Your task to perform on an android device: turn on showing notifications on the lock screen Image 0: 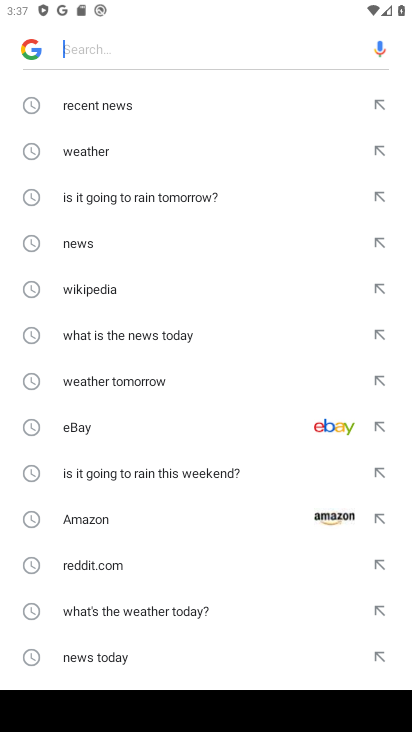
Step 0: press home button
Your task to perform on an android device: turn on showing notifications on the lock screen Image 1: 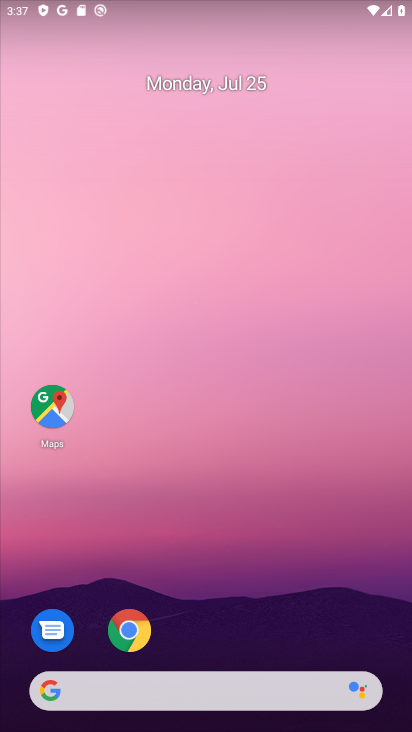
Step 1: drag from (169, 695) to (191, 122)
Your task to perform on an android device: turn on showing notifications on the lock screen Image 2: 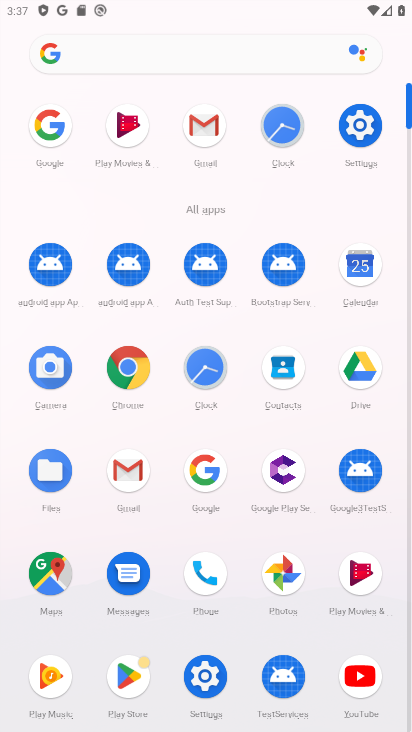
Step 2: click (360, 125)
Your task to perform on an android device: turn on showing notifications on the lock screen Image 3: 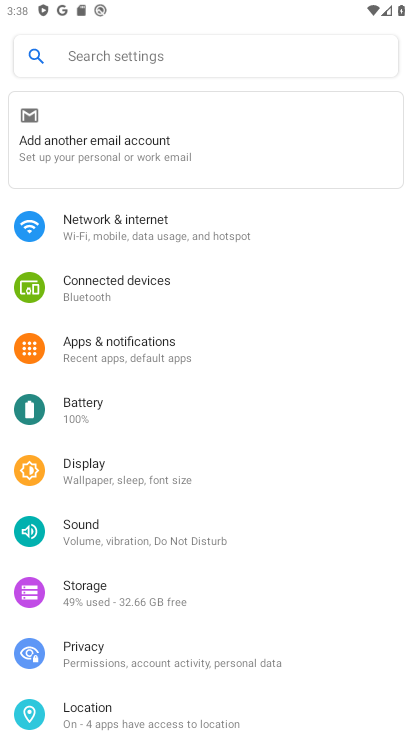
Step 3: click (124, 356)
Your task to perform on an android device: turn on showing notifications on the lock screen Image 4: 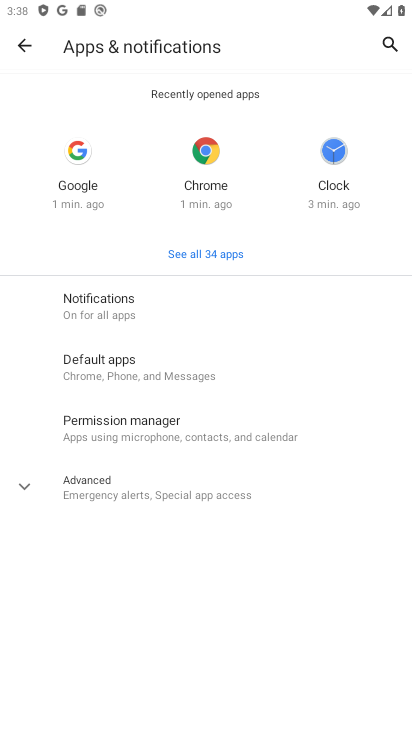
Step 4: click (105, 307)
Your task to perform on an android device: turn on showing notifications on the lock screen Image 5: 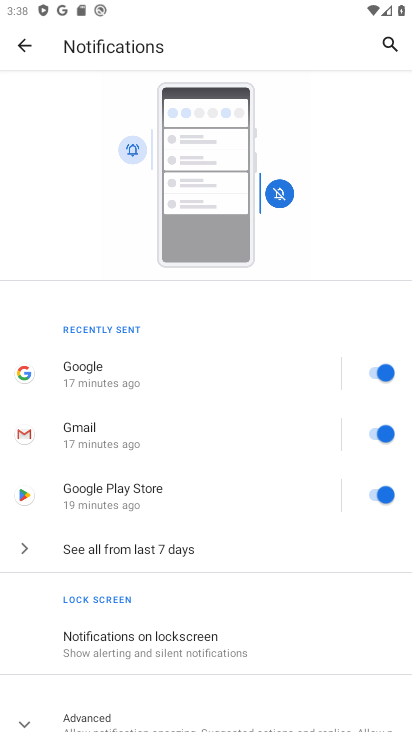
Step 5: click (143, 640)
Your task to perform on an android device: turn on showing notifications on the lock screen Image 6: 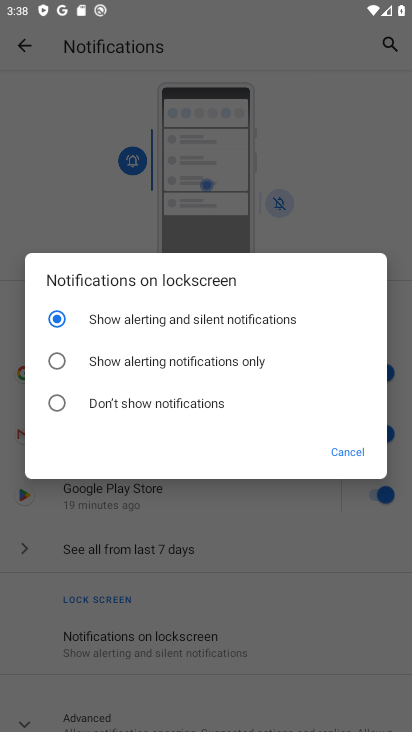
Step 6: click (53, 321)
Your task to perform on an android device: turn on showing notifications on the lock screen Image 7: 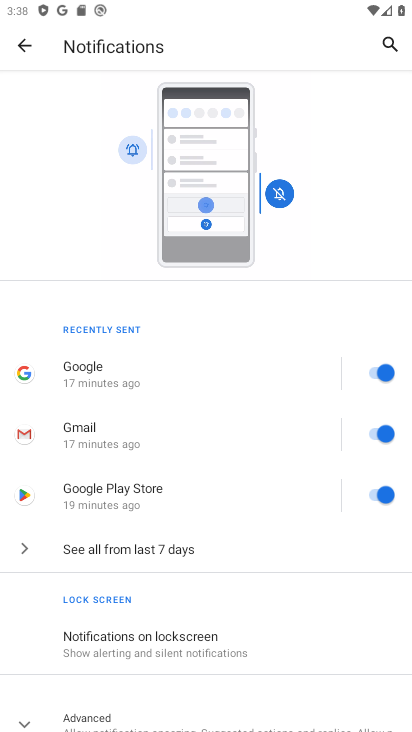
Step 7: task complete